Your task to perform on an android device: turn notification dots off Image 0: 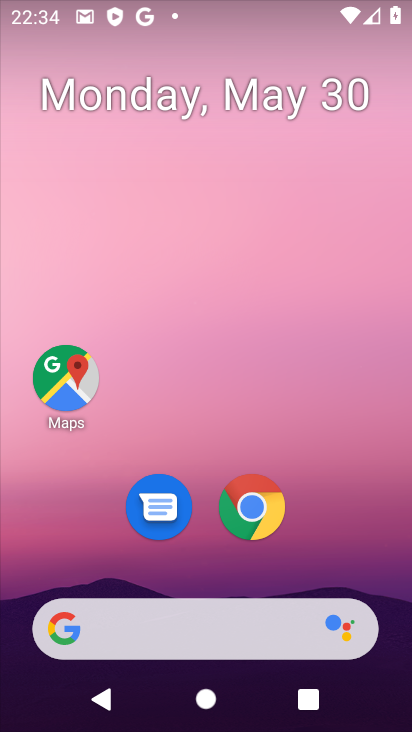
Step 0: drag from (380, 588) to (376, 280)
Your task to perform on an android device: turn notification dots off Image 1: 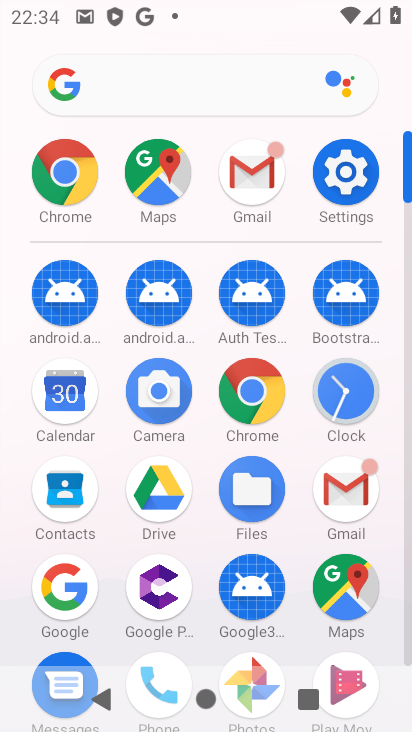
Step 1: click (351, 195)
Your task to perform on an android device: turn notification dots off Image 2: 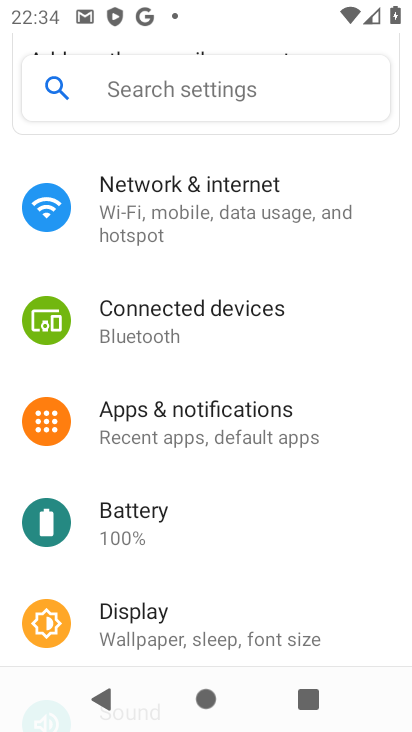
Step 2: drag from (335, 272) to (336, 441)
Your task to perform on an android device: turn notification dots off Image 3: 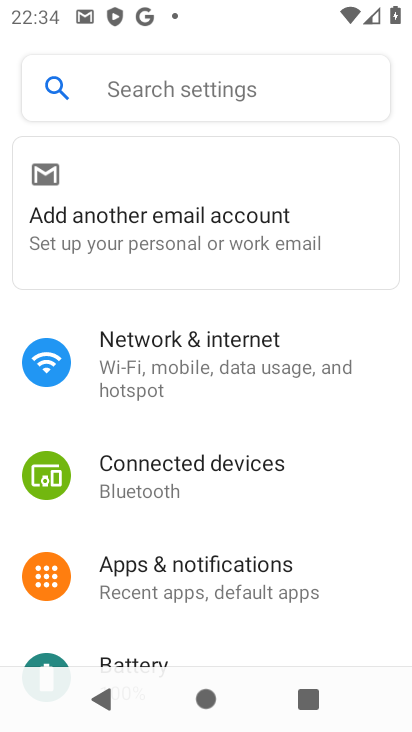
Step 3: drag from (361, 284) to (366, 490)
Your task to perform on an android device: turn notification dots off Image 4: 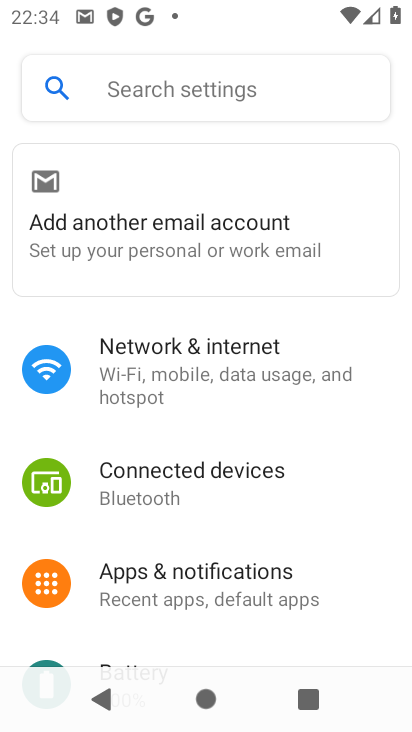
Step 4: click (296, 595)
Your task to perform on an android device: turn notification dots off Image 5: 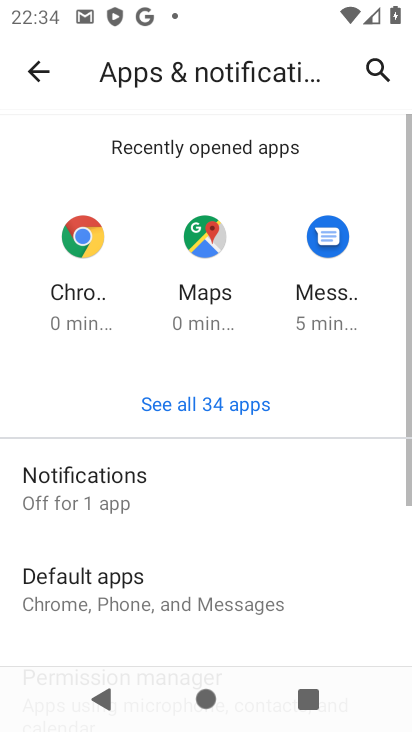
Step 5: drag from (364, 464) to (366, 376)
Your task to perform on an android device: turn notification dots off Image 6: 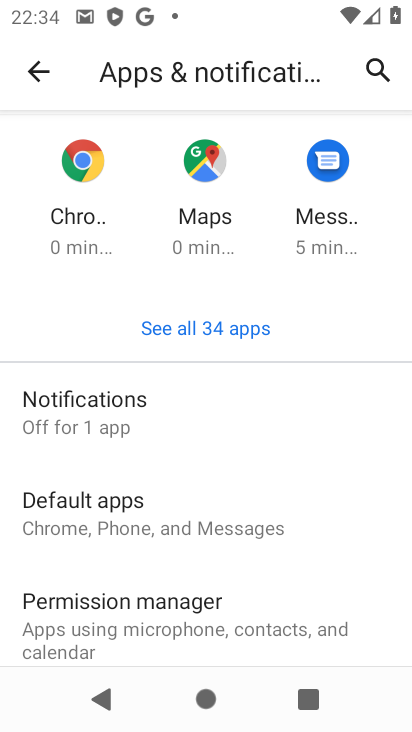
Step 6: drag from (365, 567) to (356, 470)
Your task to perform on an android device: turn notification dots off Image 7: 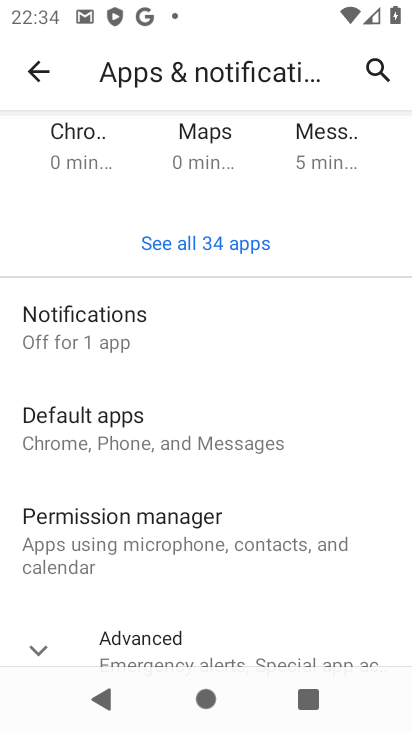
Step 7: drag from (367, 598) to (372, 482)
Your task to perform on an android device: turn notification dots off Image 8: 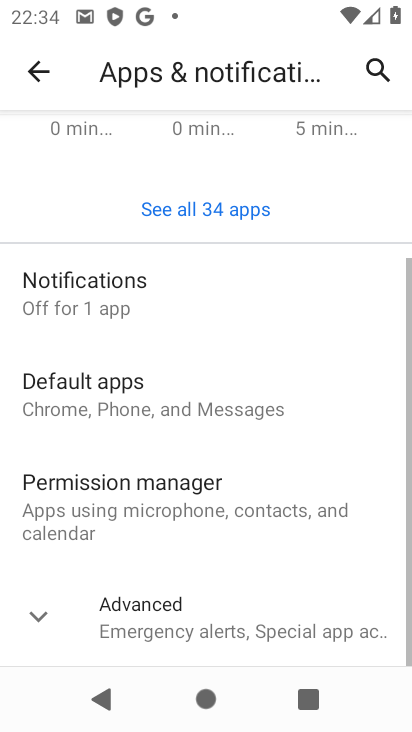
Step 8: click (199, 309)
Your task to perform on an android device: turn notification dots off Image 9: 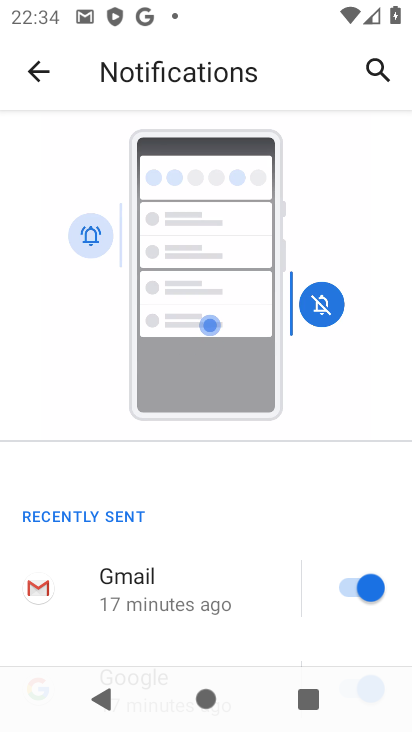
Step 9: drag from (286, 546) to (291, 434)
Your task to perform on an android device: turn notification dots off Image 10: 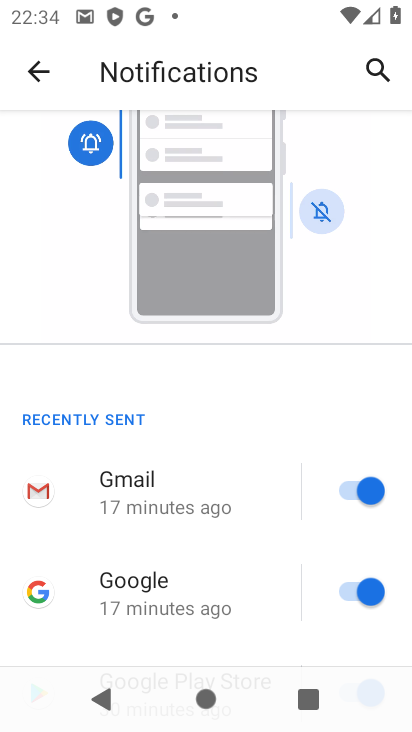
Step 10: drag from (271, 603) to (276, 449)
Your task to perform on an android device: turn notification dots off Image 11: 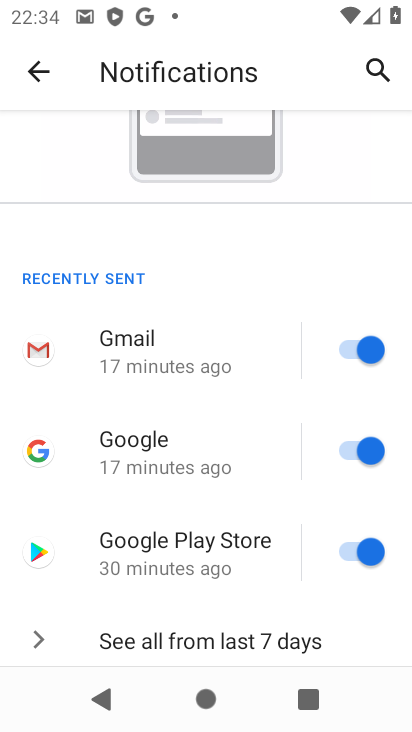
Step 11: drag from (260, 527) to (265, 424)
Your task to perform on an android device: turn notification dots off Image 12: 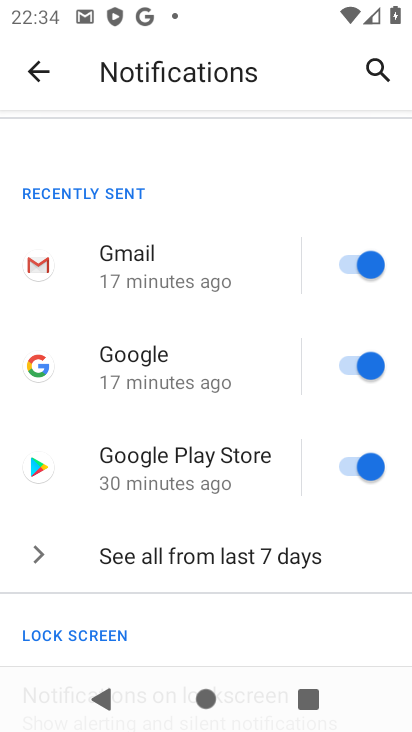
Step 12: drag from (301, 599) to (298, 451)
Your task to perform on an android device: turn notification dots off Image 13: 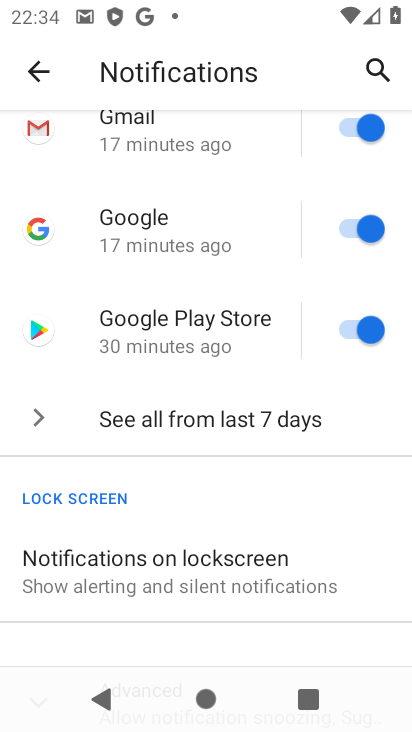
Step 13: drag from (305, 597) to (305, 433)
Your task to perform on an android device: turn notification dots off Image 14: 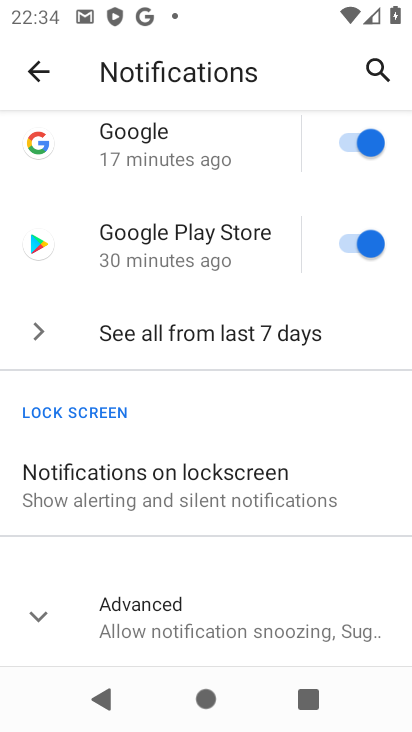
Step 14: click (272, 615)
Your task to perform on an android device: turn notification dots off Image 15: 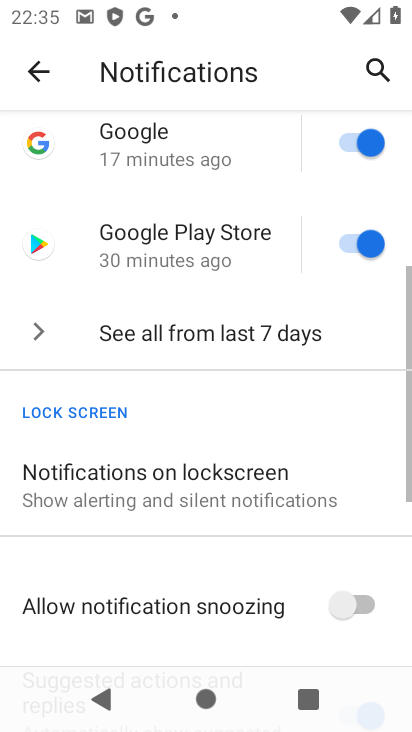
Step 15: drag from (297, 567) to (304, 397)
Your task to perform on an android device: turn notification dots off Image 16: 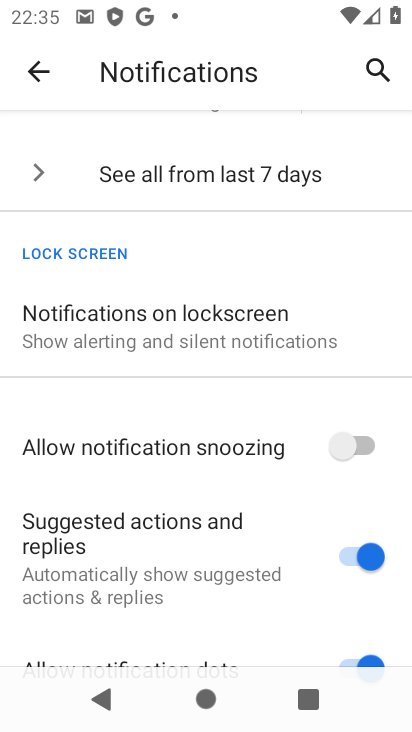
Step 16: drag from (305, 605) to (305, 446)
Your task to perform on an android device: turn notification dots off Image 17: 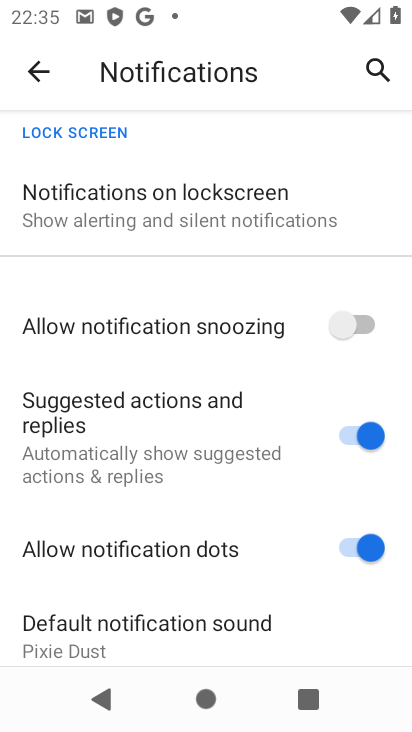
Step 17: click (358, 550)
Your task to perform on an android device: turn notification dots off Image 18: 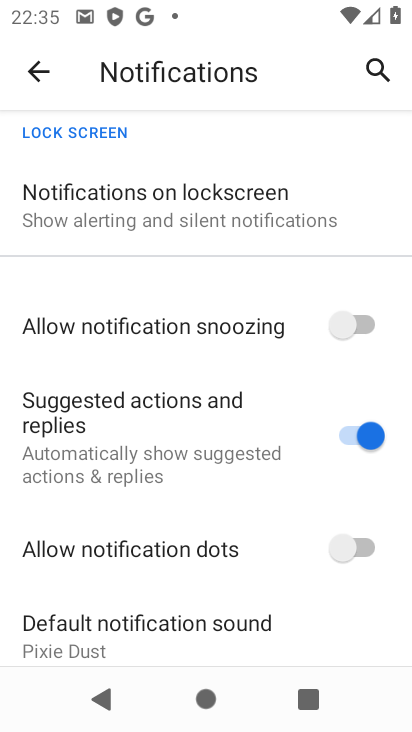
Step 18: task complete